Your task to perform on an android device: turn on showing notifications on the lock screen Image 0: 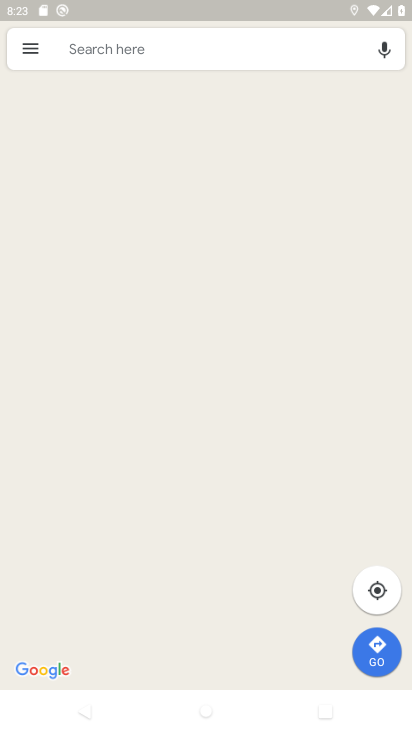
Step 0: press home button
Your task to perform on an android device: turn on showing notifications on the lock screen Image 1: 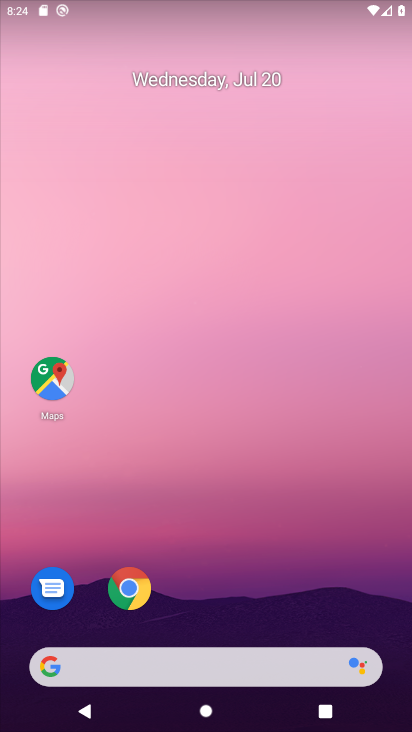
Step 1: drag from (204, 606) to (212, 104)
Your task to perform on an android device: turn on showing notifications on the lock screen Image 2: 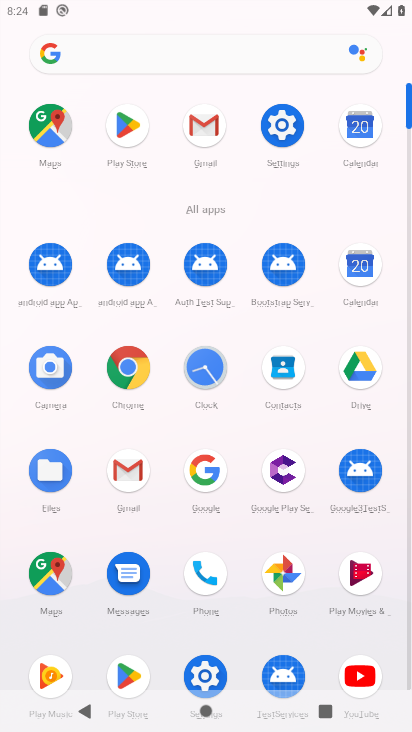
Step 2: click (278, 117)
Your task to perform on an android device: turn on showing notifications on the lock screen Image 3: 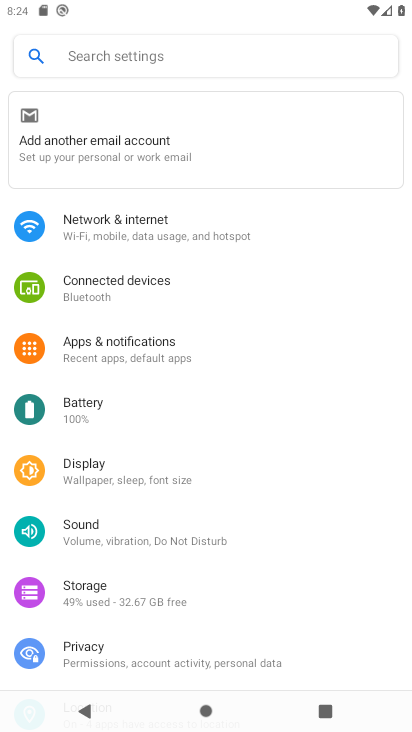
Step 3: click (162, 352)
Your task to perform on an android device: turn on showing notifications on the lock screen Image 4: 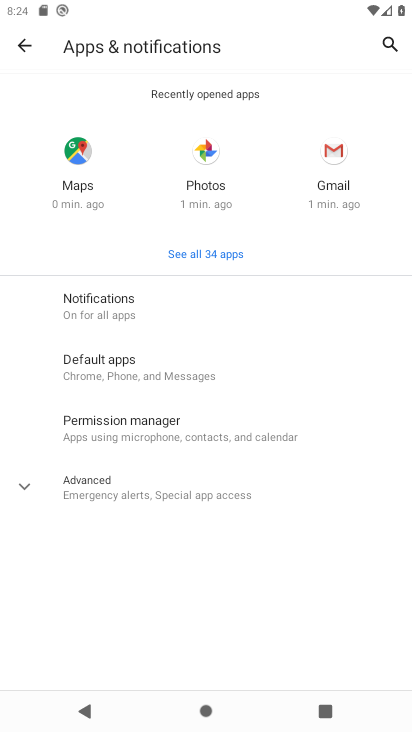
Step 4: click (101, 295)
Your task to perform on an android device: turn on showing notifications on the lock screen Image 5: 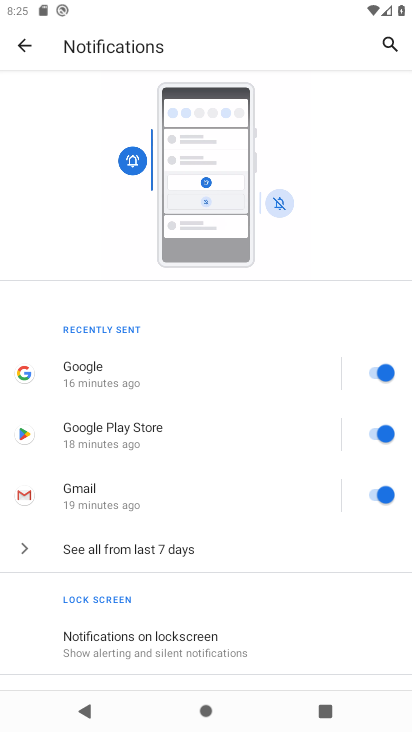
Step 5: click (185, 643)
Your task to perform on an android device: turn on showing notifications on the lock screen Image 6: 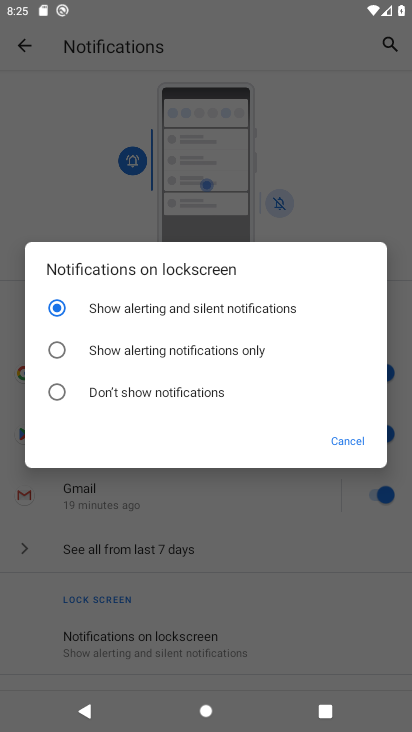
Step 6: click (50, 351)
Your task to perform on an android device: turn on showing notifications on the lock screen Image 7: 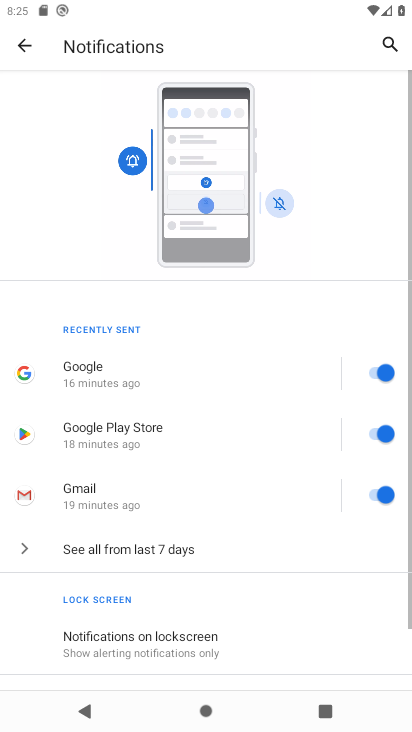
Step 7: task complete